Your task to perform on an android device: see tabs open on other devices in the chrome app Image 0: 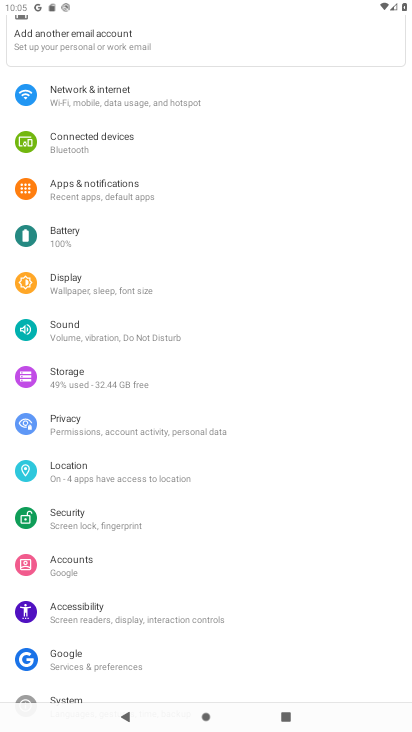
Step 0: press home button
Your task to perform on an android device: see tabs open on other devices in the chrome app Image 1: 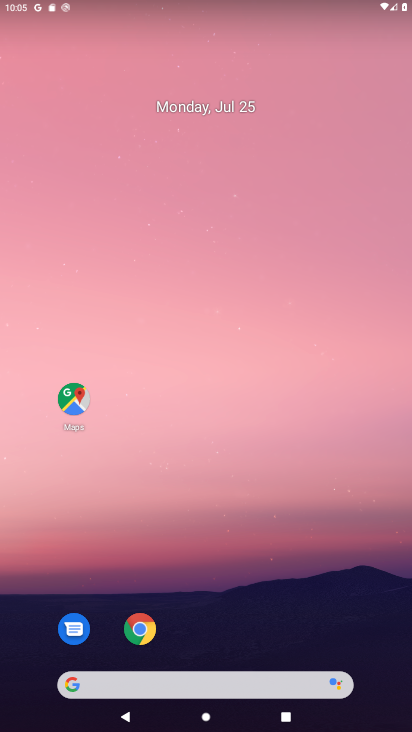
Step 1: click (141, 629)
Your task to perform on an android device: see tabs open on other devices in the chrome app Image 2: 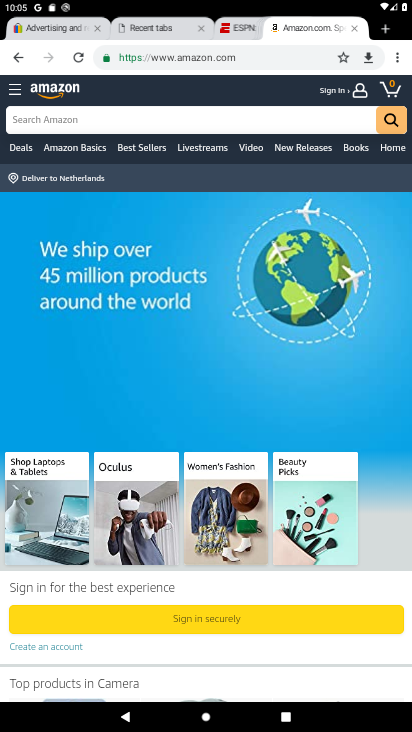
Step 2: click (404, 64)
Your task to perform on an android device: see tabs open on other devices in the chrome app Image 3: 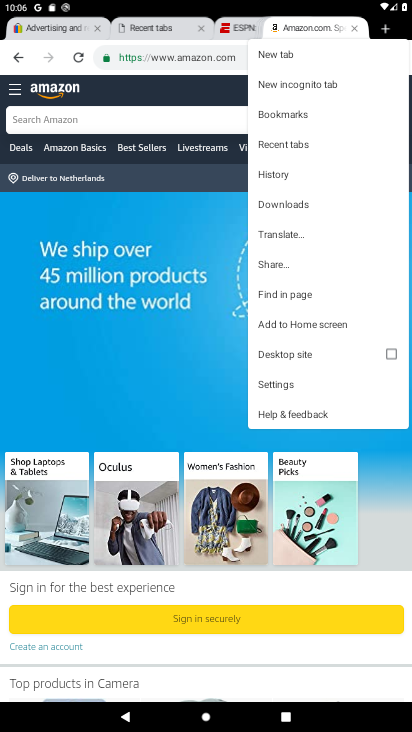
Step 3: click (290, 141)
Your task to perform on an android device: see tabs open on other devices in the chrome app Image 4: 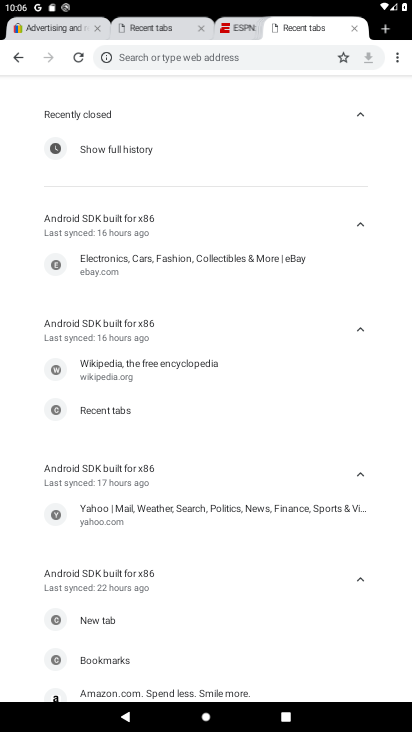
Step 4: task complete